Your task to perform on an android device: turn on wifi Image 0: 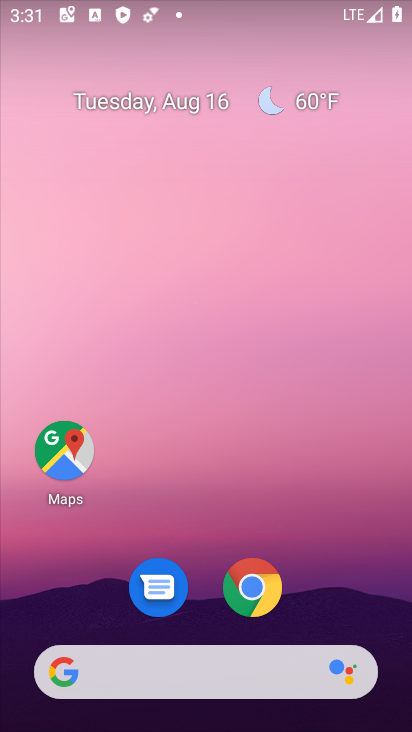
Step 0: drag from (121, 104) to (173, 471)
Your task to perform on an android device: turn on wifi Image 1: 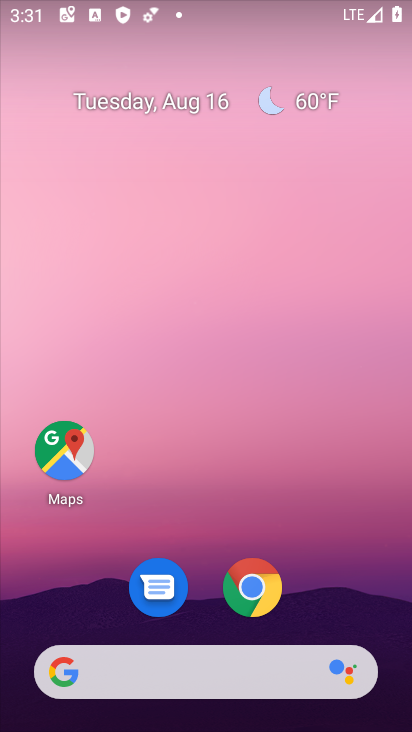
Step 1: drag from (173, 10) to (219, 538)
Your task to perform on an android device: turn on wifi Image 2: 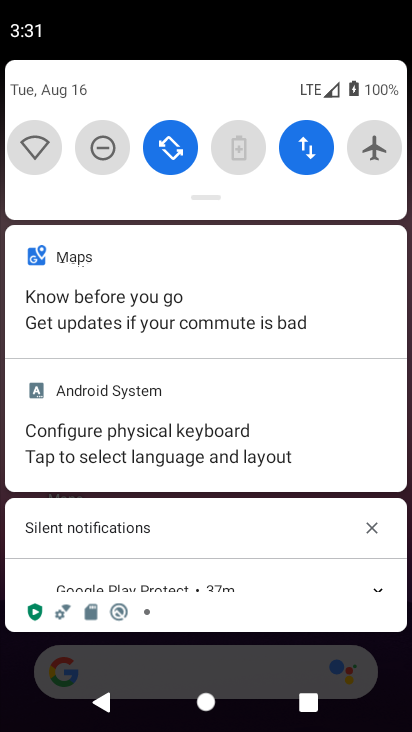
Step 2: click (29, 143)
Your task to perform on an android device: turn on wifi Image 3: 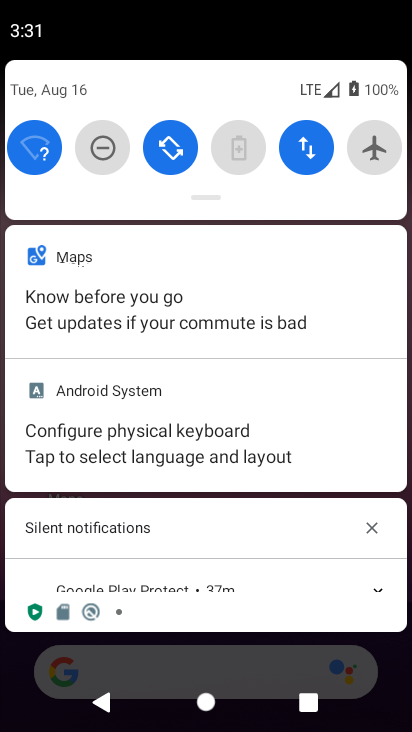
Step 3: task complete